Your task to perform on an android device: open app "Duolingo: language lessons" (install if not already installed), go to login, and select forgot password Image 0: 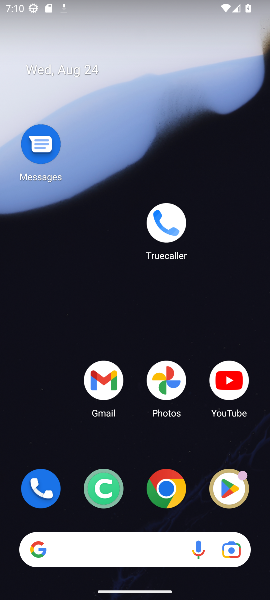
Step 0: drag from (197, 512) to (220, 141)
Your task to perform on an android device: open app "Duolingo: language lessons" (install if not already installed), go to login, and select forgot password Image 1: 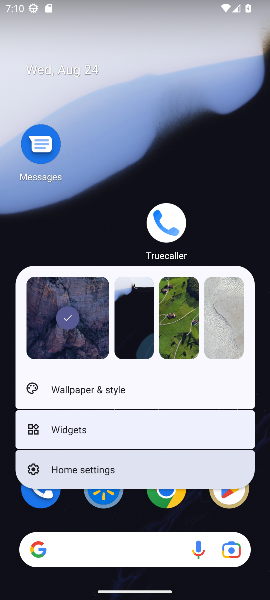
Step 1: click (98, 221)
Your task to perform on an android device: open app "Duolingo: language lessons" (install if not already installed), go to login, and select forgot password Image 2: 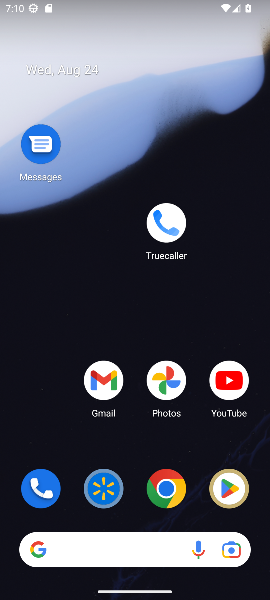
Step 2: click (222, 501)
Your task to perform on an android device: open app "Duolingo: language lessons" (install if not already installed), go to login, and select forgot password Image 3: 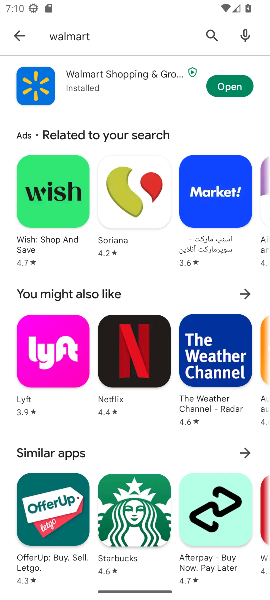
Step 3: click (208, 33)
Your task to perform on an android device: open app "Duolingo: language lessons" (install if not already installed), go to login, and select forgot password Image 4: 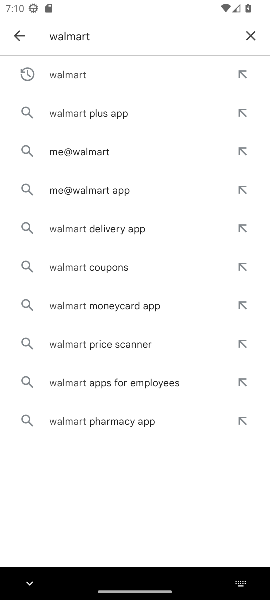
Step 4: click (239, 37)
Your task to perform on an android device: open app "Duolingo: language lessons" (install if not already installed), go to login, and select forgot password Image 5: 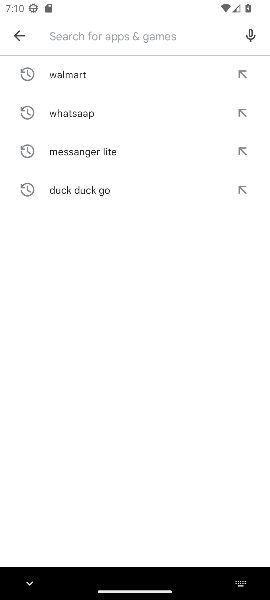
Step 5: type "duoling"
Your task to perform on an android device: open app "Duolingo: language lessons" (install if not already installed), go to login, and select forgot password Image 6: 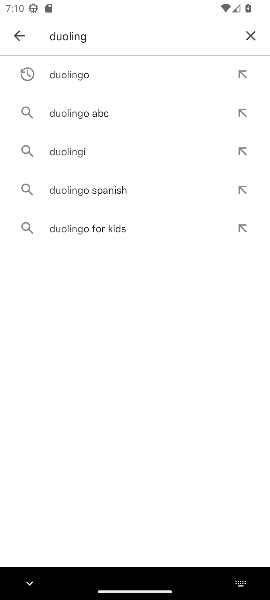
Step 6: click (116, 78)
Your task to perform on an android device: open app "Duolingo: language lessons" (install if not already installed), go to login, and select forgot password Image 7: 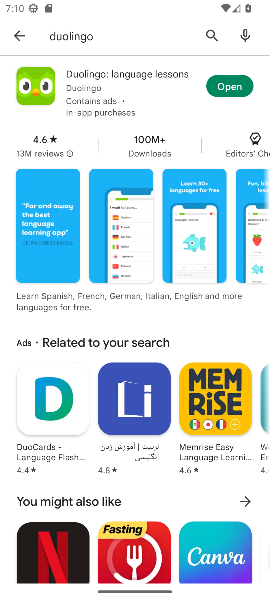
Step 7: click (226, 87)
Your task to perform on an android device: open app "Duolingo: language lessons" (install if not already installed), go to login, and select forgot password Image 8: 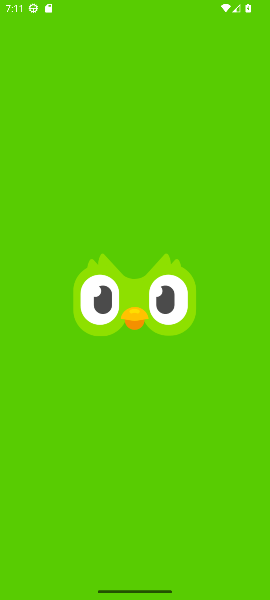
Step 8: task complete